Your task to perform on an android device: toggle sleep mode Image 0: 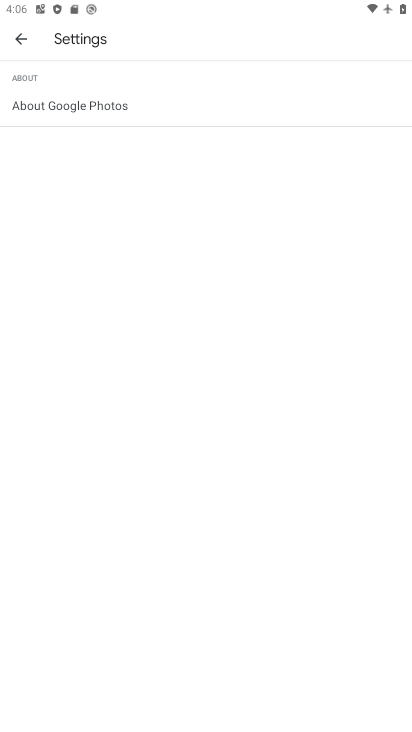
Step 0: press back button
Your task to perform on an android device: toggle sleep mode Image 1: 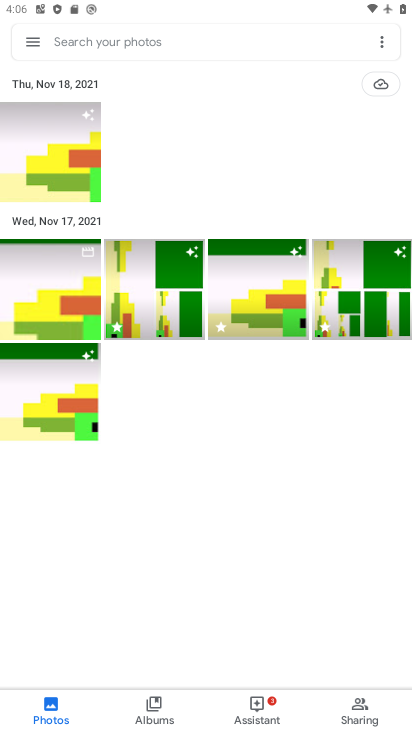
Step 1: press back button
Your task to perform on an android device: toggle sleep mode Image 2: 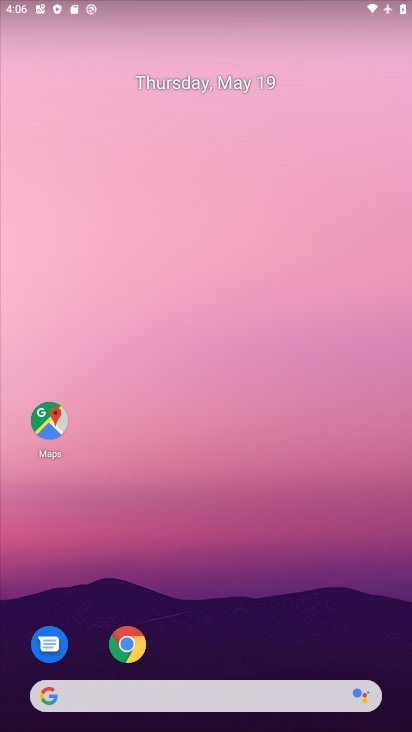
Step 2: drag from (196, 582) to (204, 4)
Your task to perform on an android device: toggle sleep mode Image 3: 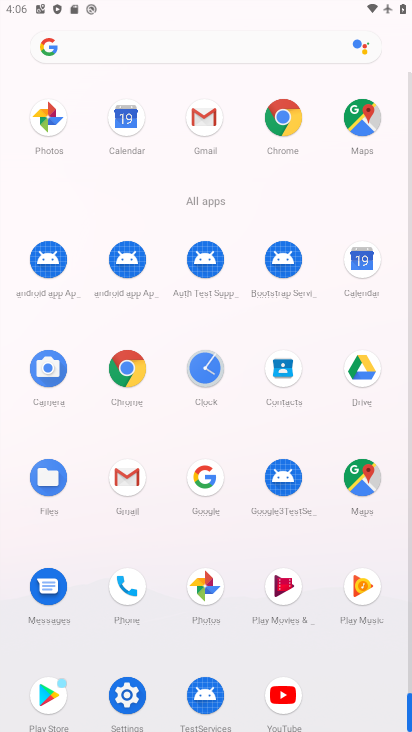
Step 3: drag from (3, 511) to (0, 293)
Your task to perform on an android device: toggle sleep mode Image 4: 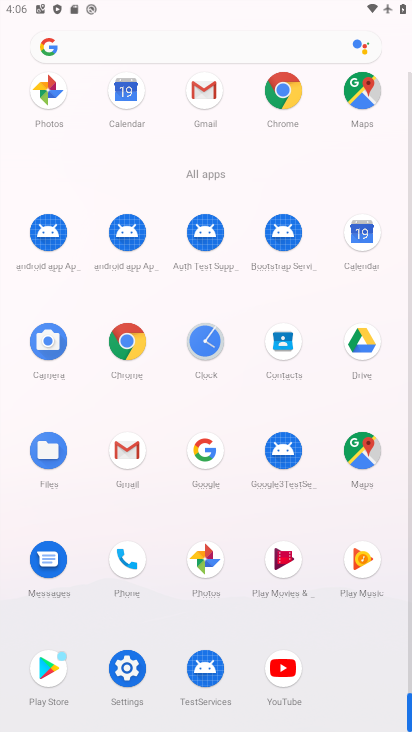
Step 4: click (118, 665)
Your task to perform on an android device: toggle sleep mode Image 5: 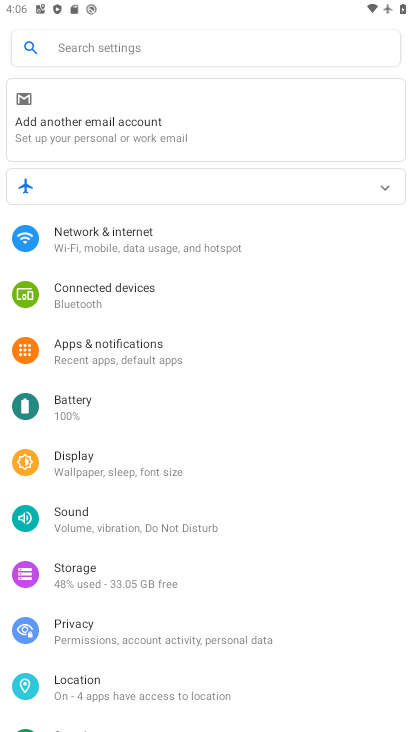
Step 5: drag from (226, 595) to (258, 272)
Your task to perform on an android device: toggle sleep mode Image 6: 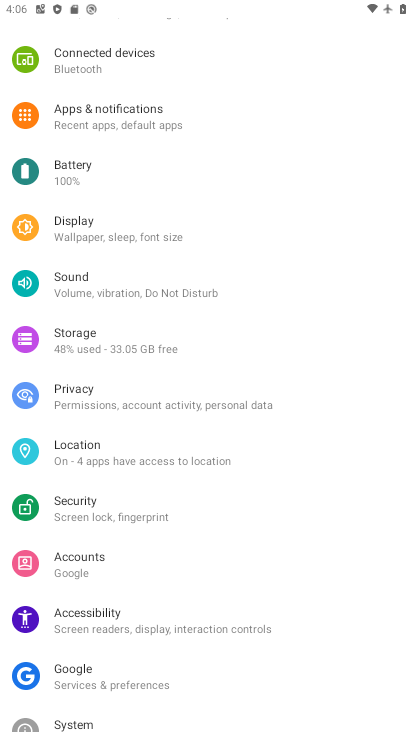
Step 6: click (118, 217)
Your task to perform on an android device: toggle sleep mode Image 7: 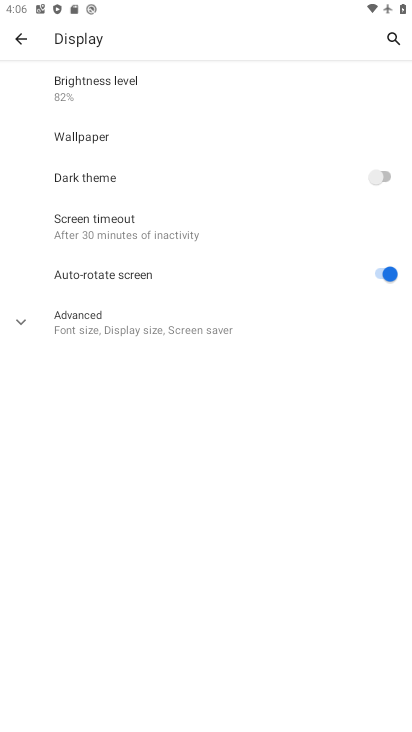
Step 7: click (70, 319)
Your task to perform on an android device: toggle sleep mode Image 8: 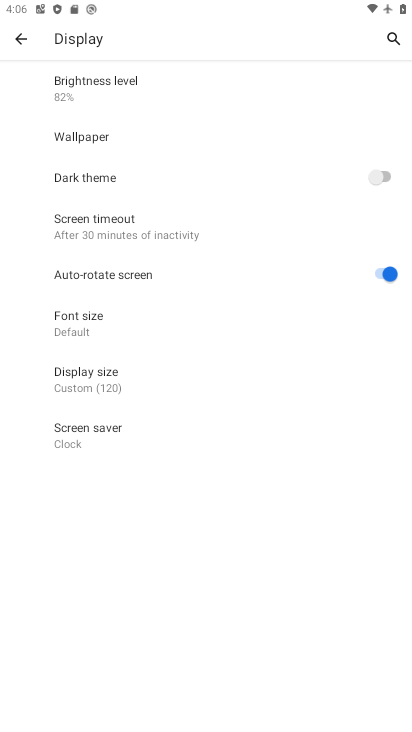
Step 8: task complete